Your task to perform on an android device: Clear the cart on newegg.com. Search for "alienware area 51" on newegg.com, select the first entry, and add it to the cart. Image 0: 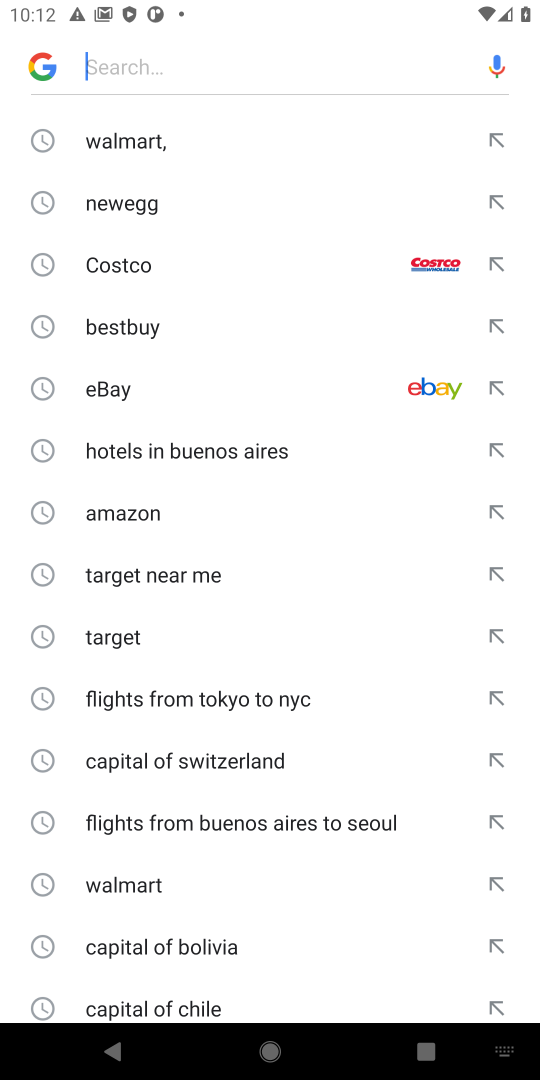
Step 0: press home button
Your task to perform on an android device: Clear the cart on newegg.com. Search for "alienware area 51" on newegg.com, select the first entry, and add it to the cart. Image 1: 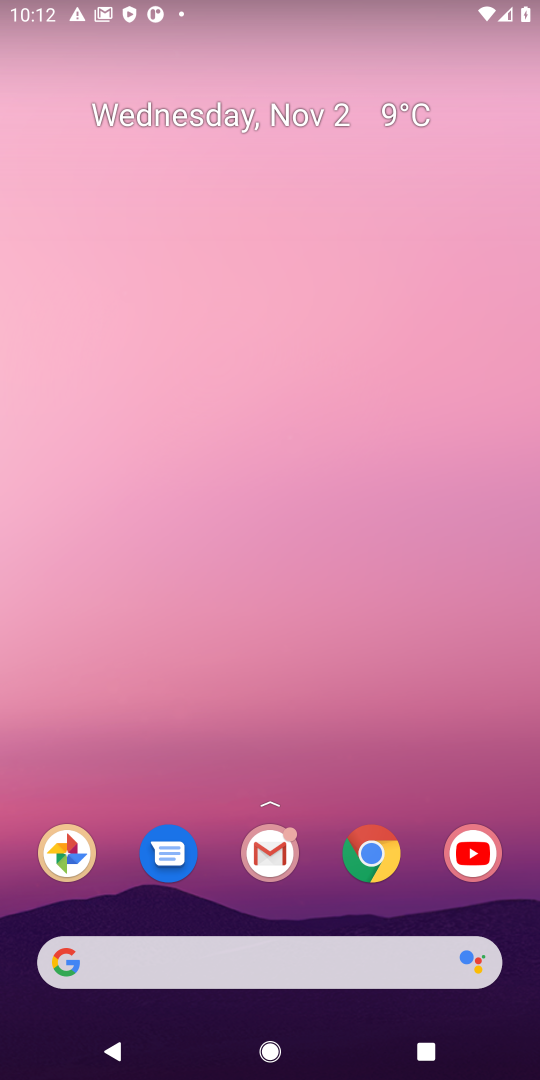
Step 1: click (376, 854)
Your task to perform on an android device: Clear the cart on newegg.com. Search for "alienware area 51" on newegg.com, select the first entry, and add it to the cart. Image 2: 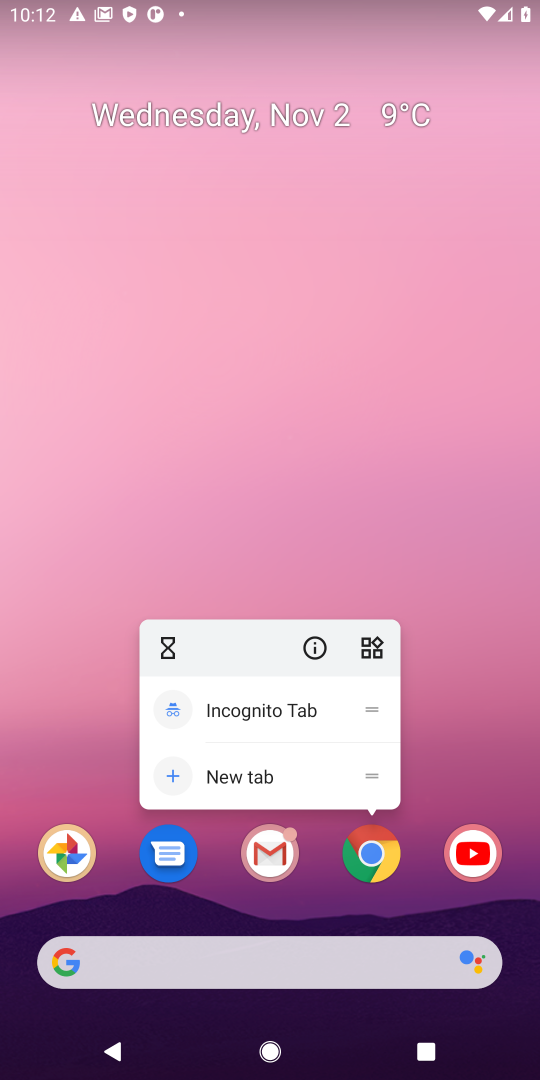
Step 2: click (376, 852)
Your task to perform on an android device: Clear the cart on newegg.com. Search for "alienware area 51" on newegg.com, select the first entry, and add it to the cart. Image 3: 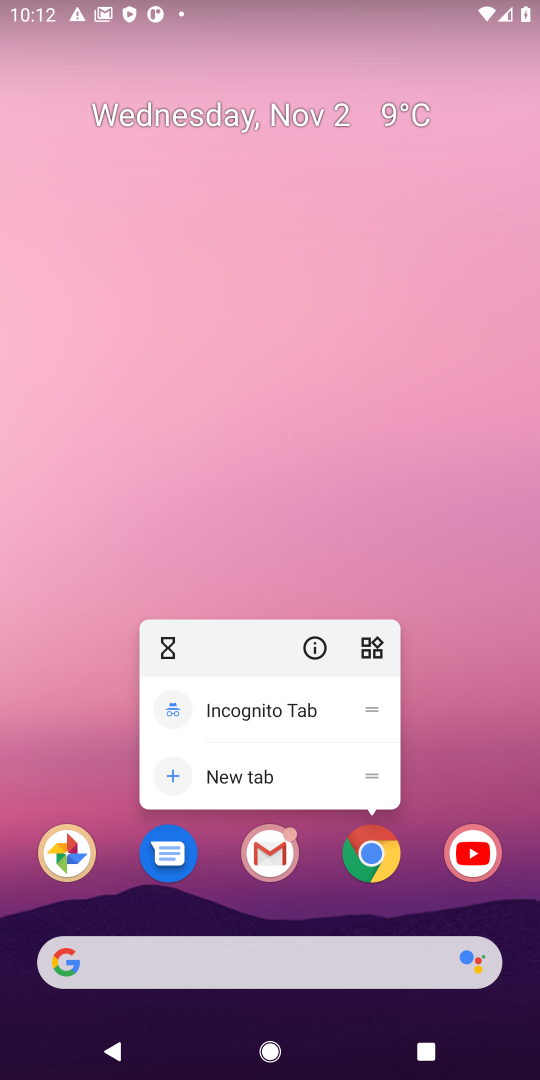
Step 3: click (376, 852)
Your task to perform on an android device: Clear the cart on newegg.com. Search for "alienware area 51" on newegg.com, select the first entry, and add it to the cart. Image 4: 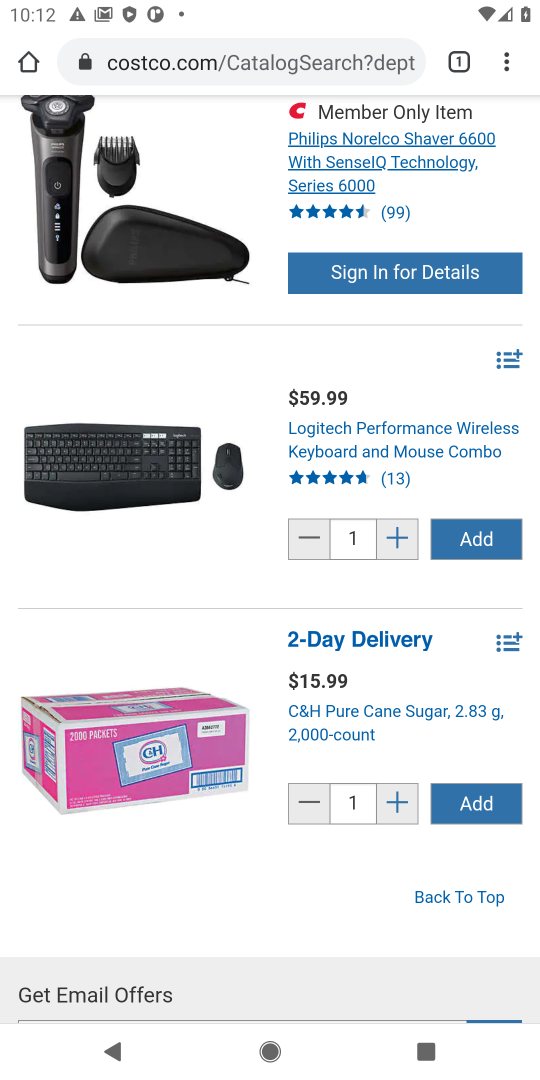
Step 4: click (305, 59)
Your task to perform on an android device: Clear the cart on newegg.com. Search for "alienware area 51" on newegg.com, select the first entry, and add it to the cart. Image 5: 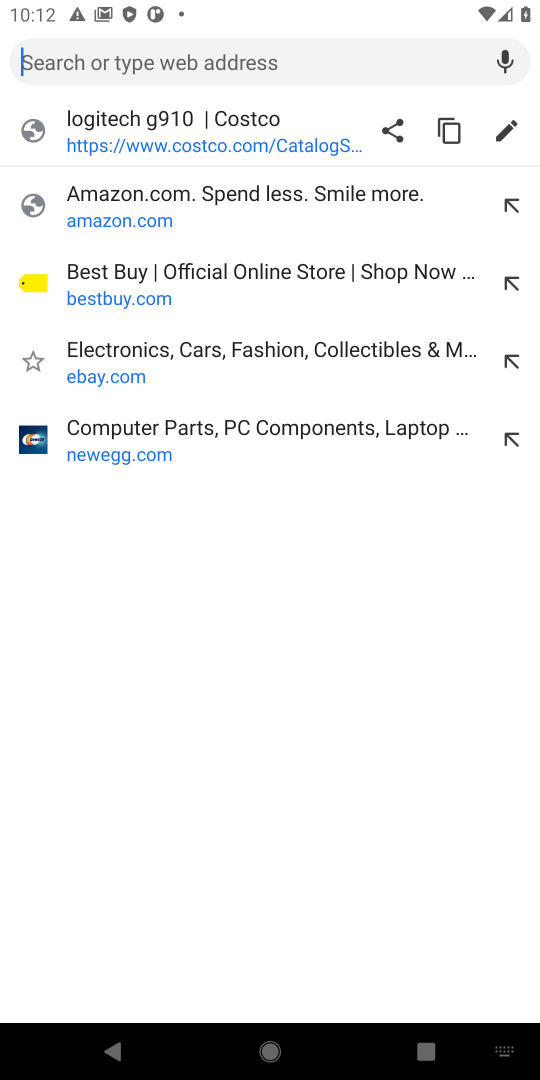
Step 5: type " newegg.com"
Your task to perform on an android device: Clear the cart on newegg.com. Search for "alienware area 51" on newegg.com, select the first entry, and add it to the cart. Image 6: 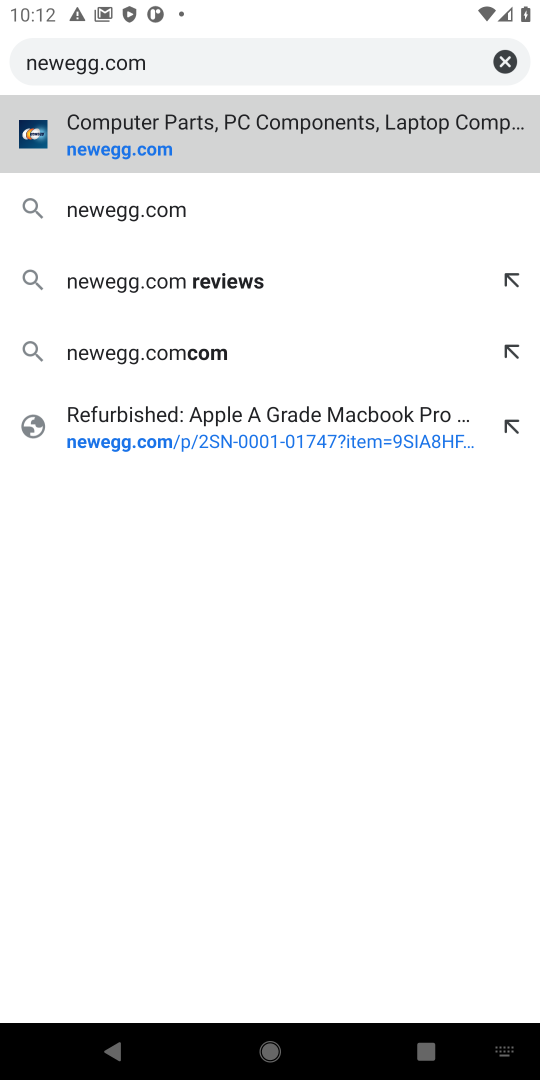
Step 6: press enter
Your task to perform on an android device: Clear the cart on newegg.com. Search for "alienware area 51" on newegg.com, select the first entry, and add it to the cart. Image 7: 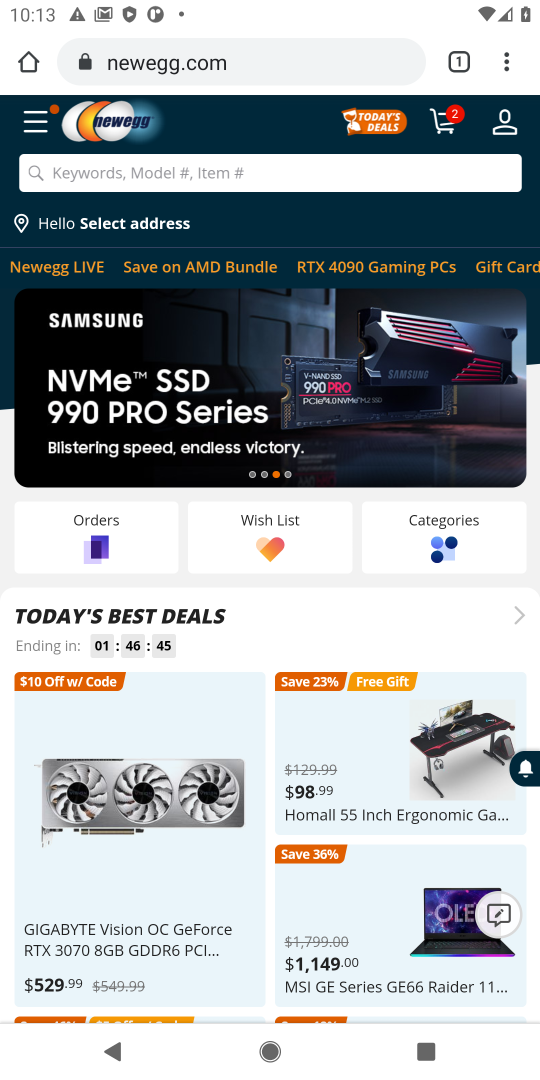
Step 7: click (267, 160)
Your task to perform on an android device: Clear the cart on newegg.com. Search for "alienware area 51" on newegg.com, select the first entry, and add it to the cart. Image 8: 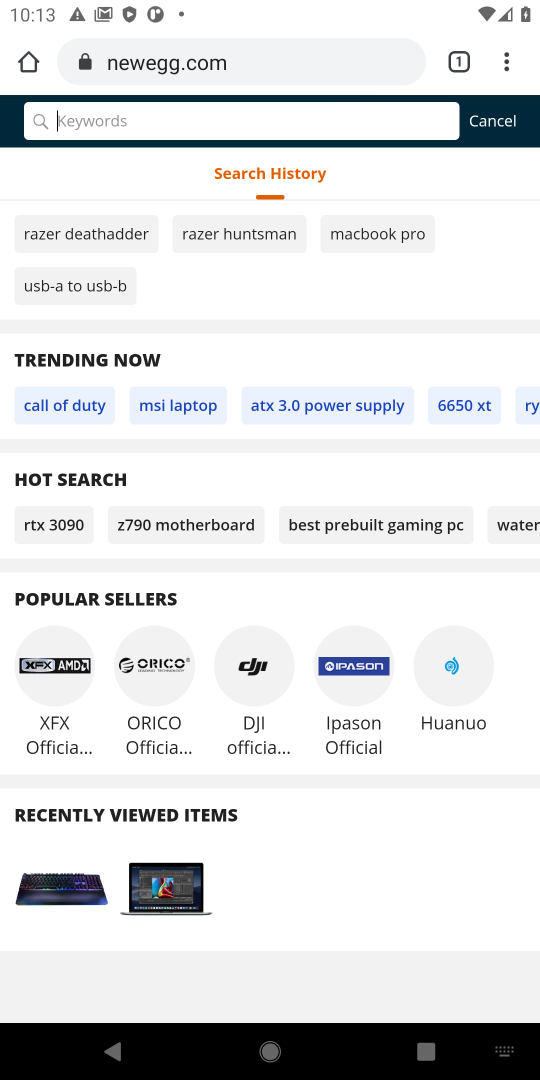
Step 8: type "alienware area 51"
Your task to perform on an android device: Clear the cart on newegg.com. Search for "alienware area 51" on newegg.com, select the first entry, and add it to the cart. Image 9: 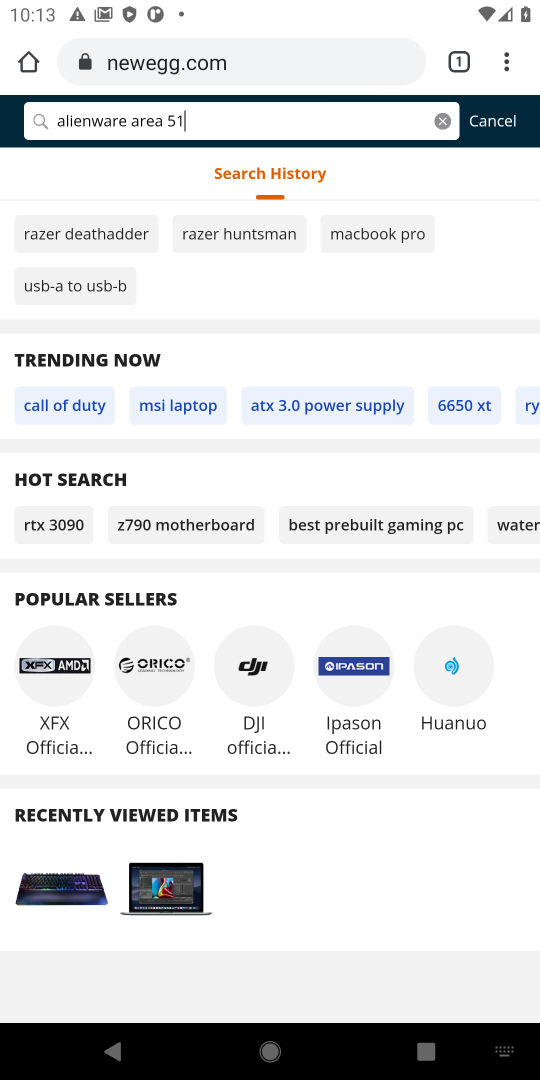
Step 9: press enter
Your task to perform on an android device: Clear the cart on newegg.com. Search for "alienware area 51" on newegg.com, select the first entry, and add it to the cart. Image 10: 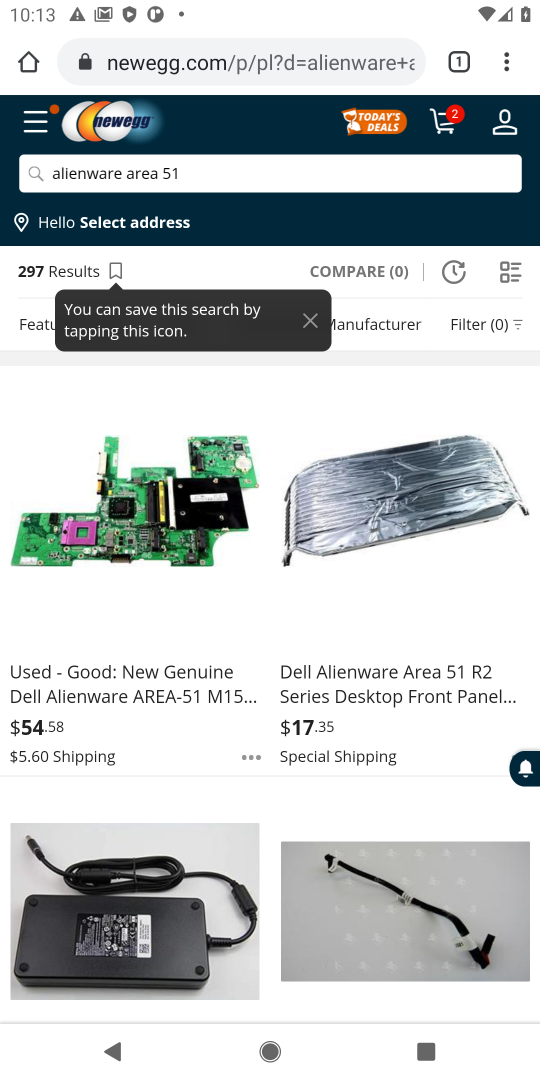
Step 10: click (190, 599)
Your task to perform on an android device: Clear the cart on newegg.com. Search for "alienware area 51" on newegg.com, select the first entry, and add it to the cart. Image 11: 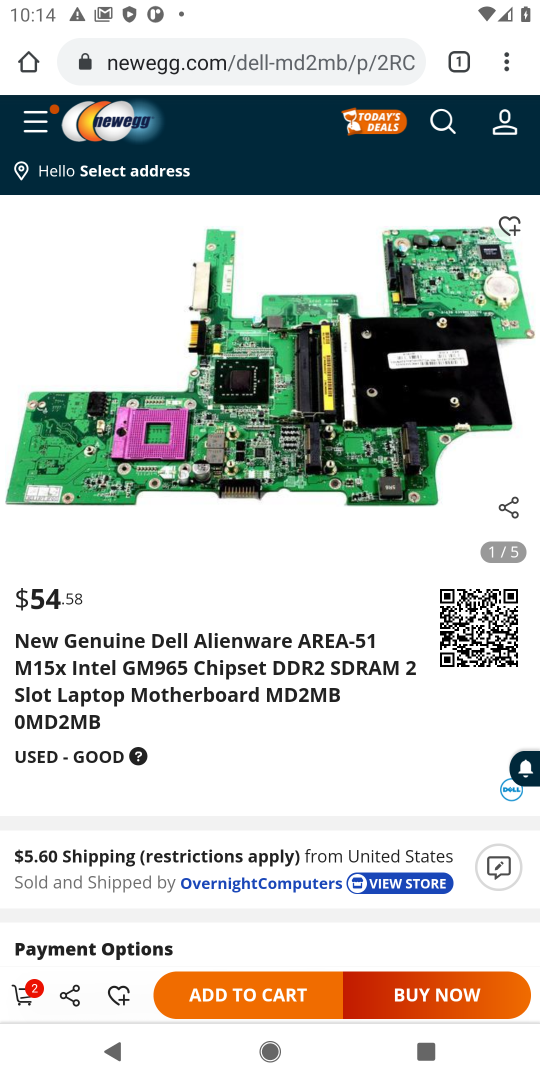
Step 11: click (266, 989)
Your task to perform on an android device: Clear the cart on newegg.com. Search for "alienware area 51" on newegg.com, select the first entry, and add it to the cart. Image 12: 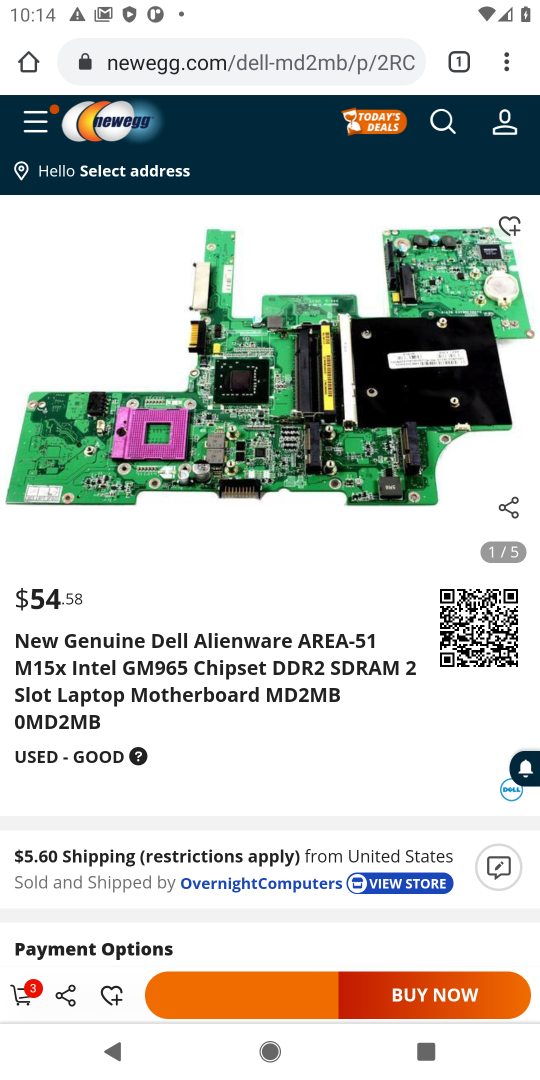
Step 12: click (27, 994)
Your task to perform on an android device: Clear the cart on newegg.com. Search for "alienware area 51" on newegg.com, select the first entry, and add it to the cart. Image 13: 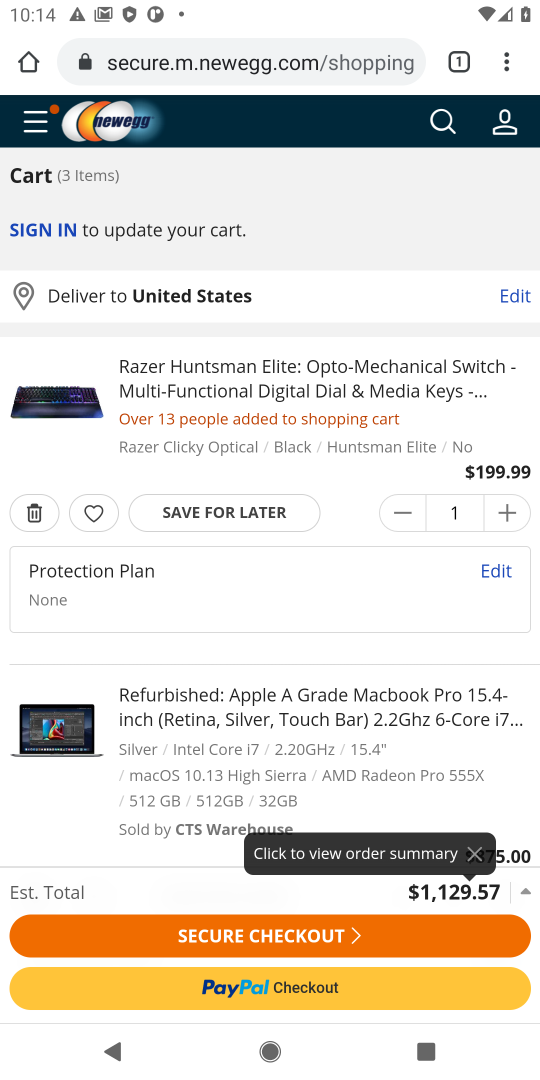
Step 13: task complete